Your task to perform on an android device: Open Reddit.com Image 0: 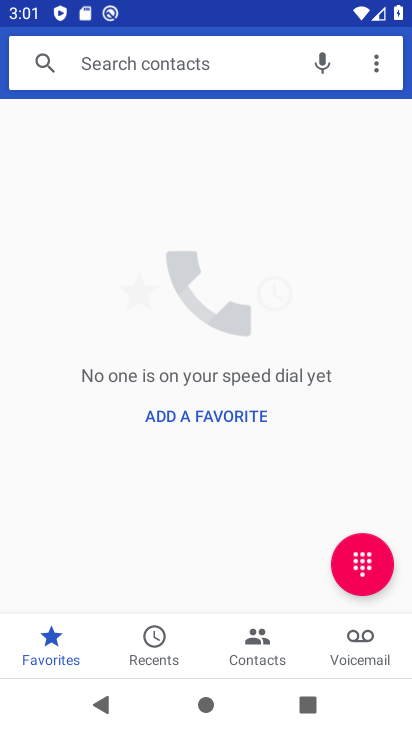
Step 0: press home button
Your task to perform on an android device: Open Reddit.com Image 1: 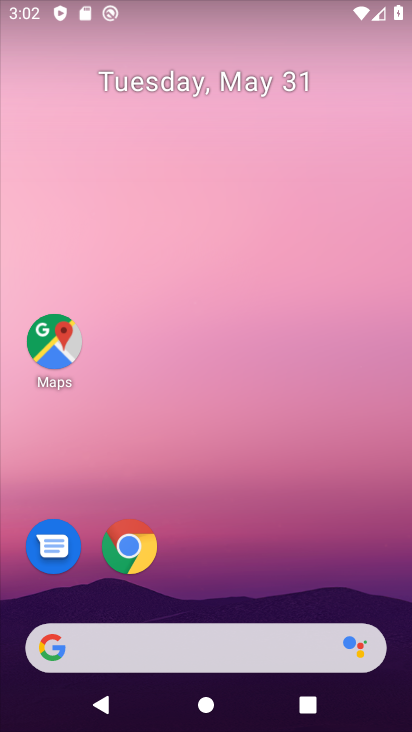
Step 1: click (130, 557)
Your task to perform on an android device: Open Reddit.com Image 2: 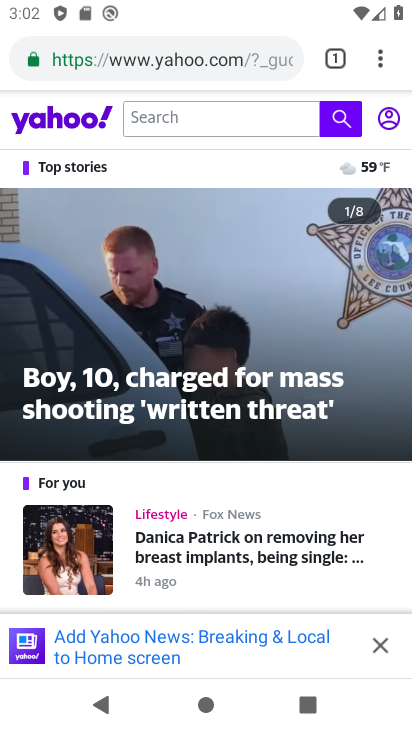
Step 2: click (257, 47)
Your task to perform on an android device: Open Reddit.com Image 3: 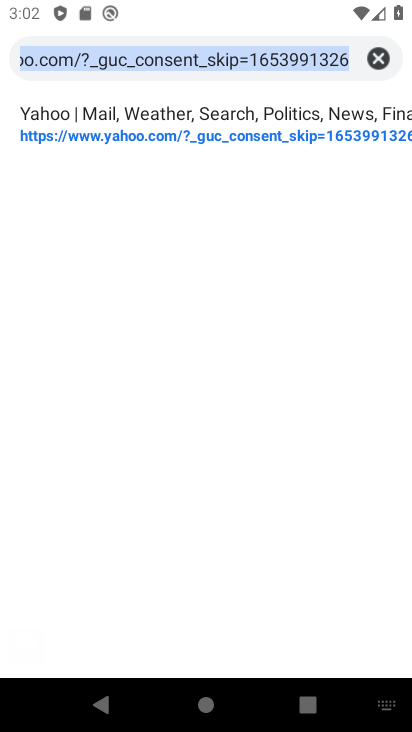
Step 3: type "www.reddit.com"
Your task to perform on an android device: Open Reddit.com Image 4: 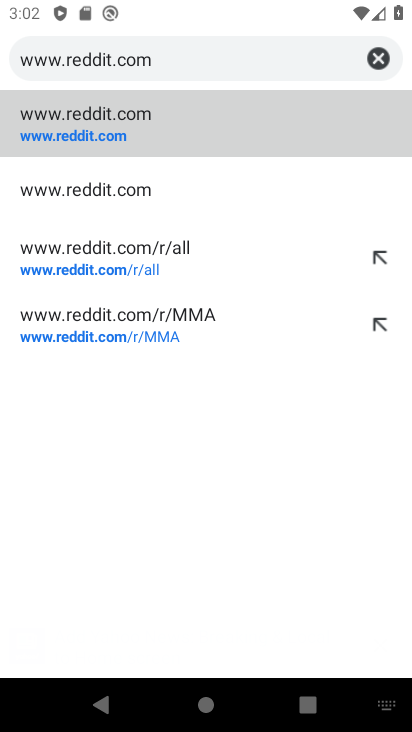
Step 4: click (110, 128)
Your task to perform on an android device: Open Reddit.com Image 5: 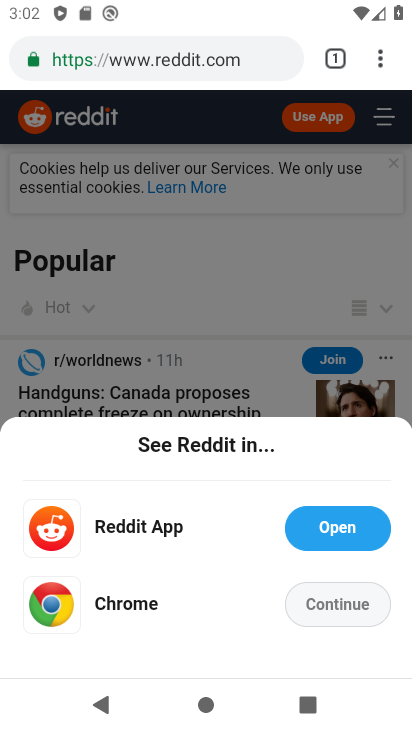
Step 5: task complete